Your task to perform on an android device: turn off airplane mode Image 0: 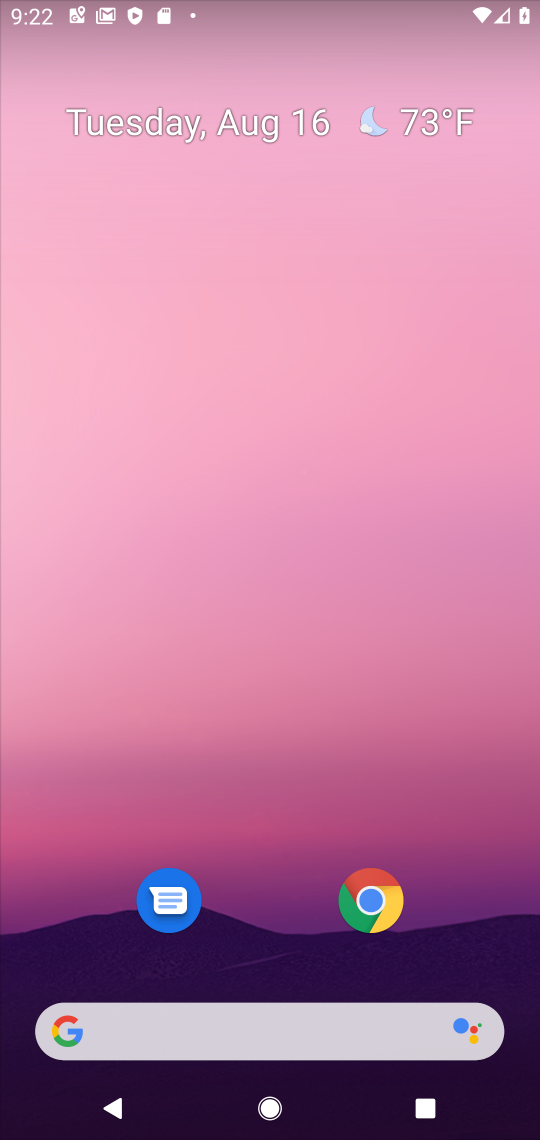
Step 0: drag from (287, 582) to (287, 362)
Your task to perform on an android device: turn off airplane mode Image 1: 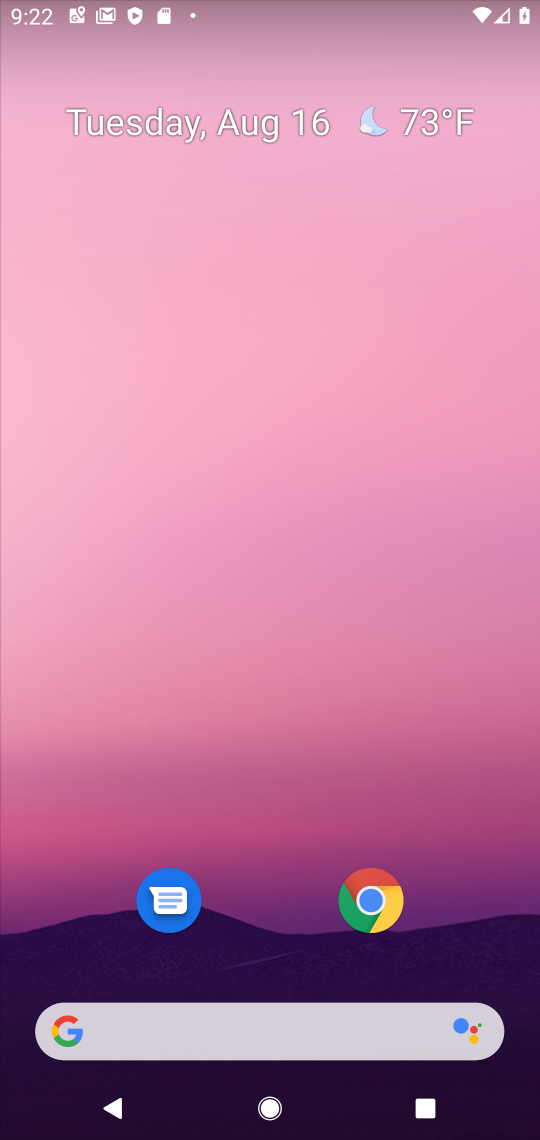
Step 1: drag from (166, 1014) to (209, 320)
Your task to perform on an android device: turn off airplane mode Image 2: 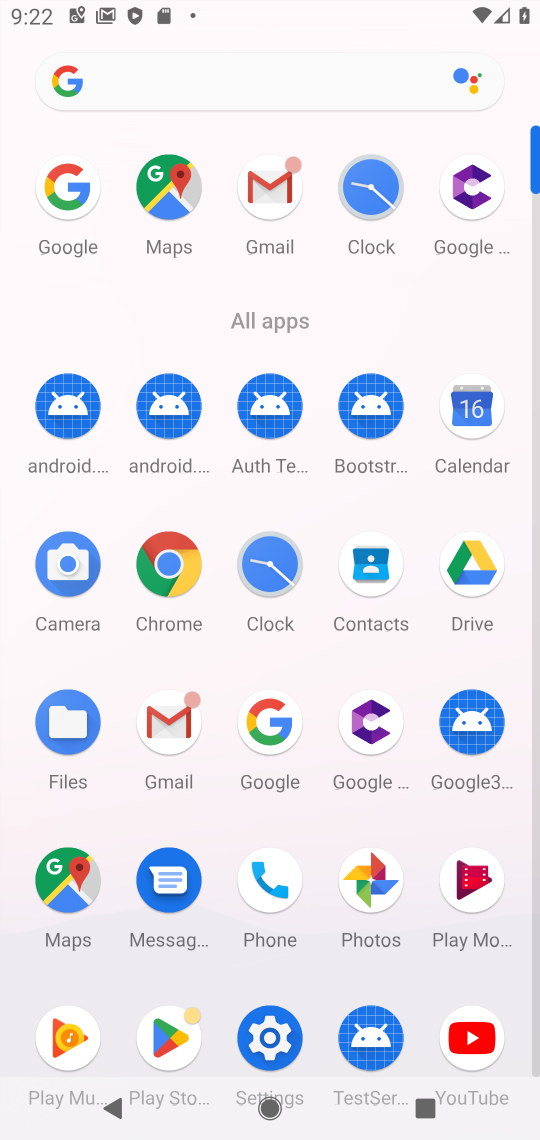
Step 2: click (267, 1021)
Your task to perform on an android device: turn off airplane mode Image 3: 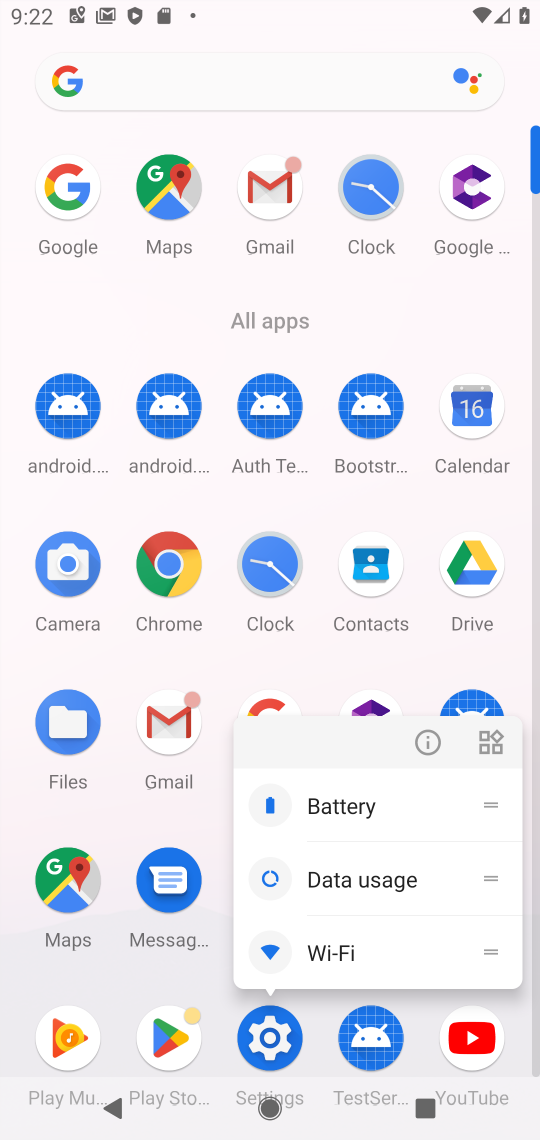
Step 3: click (254, 1052)
Your task to perform on an android device: turn off airplane mode Image 4: 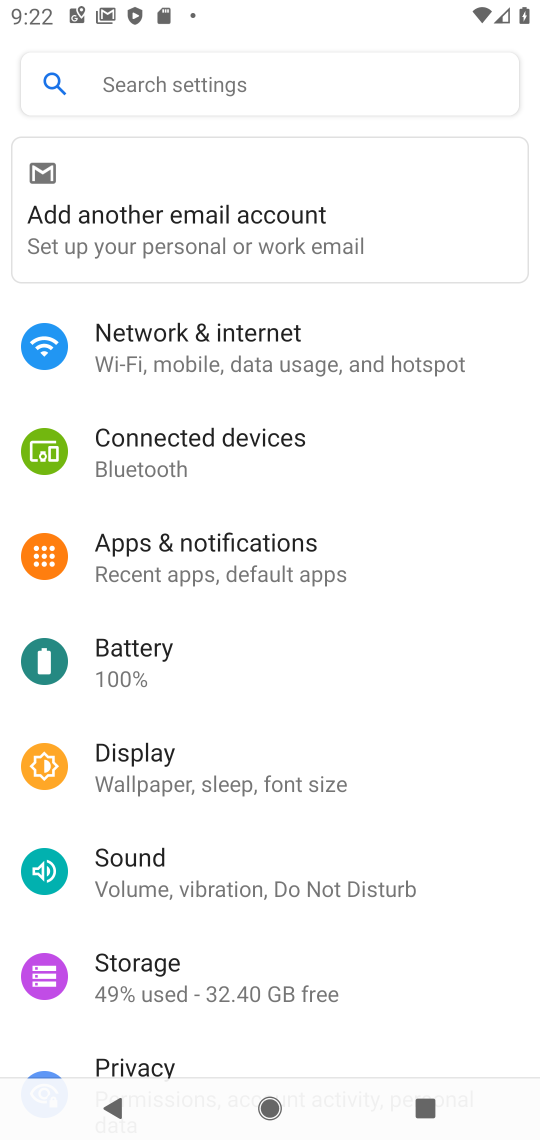
Step 4: click (117, 355)
Your task to perform on an android device: turn off airplane mode Image 5: 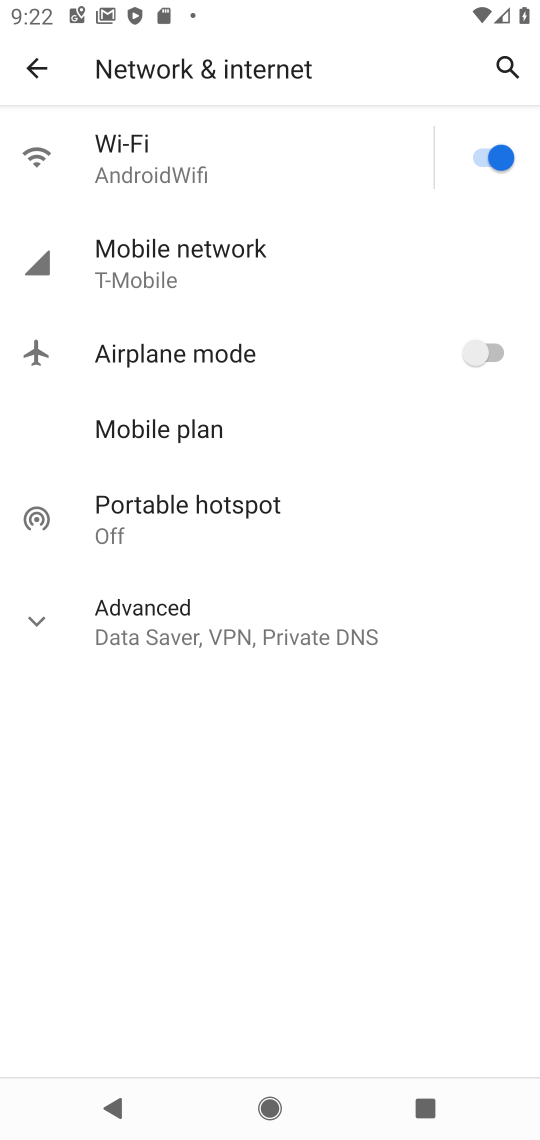
Step 5: task complete